Your task to perform on an android device: check battery use Image 0: 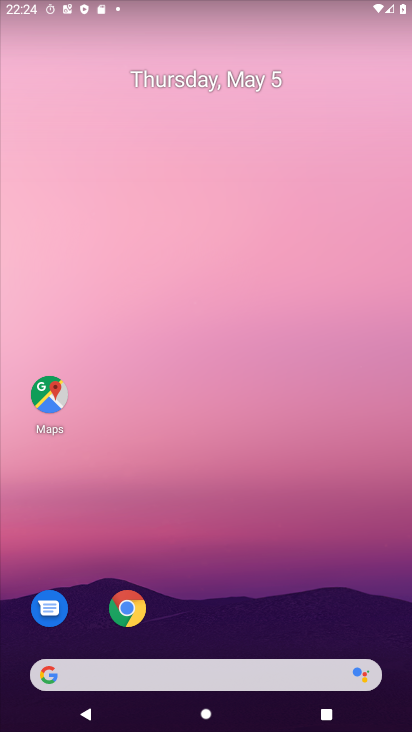
Step 0: drag from (297, 689) to (272, 117)
Your task to perform on an android device: check battery use Image 1: 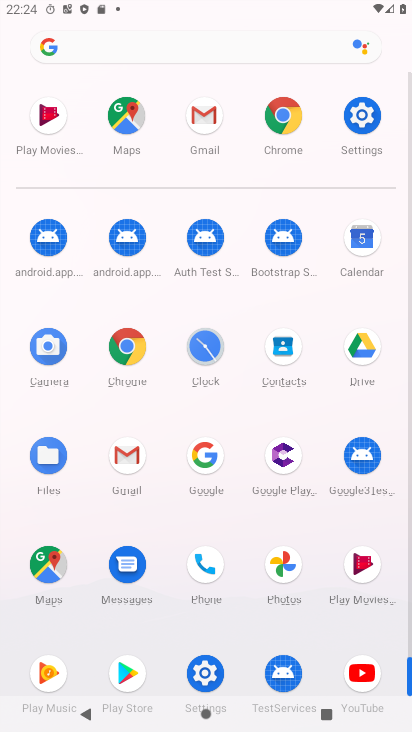
Step 1: click (365, 116)
Your task to perform on an android device: check battery use Image 2: 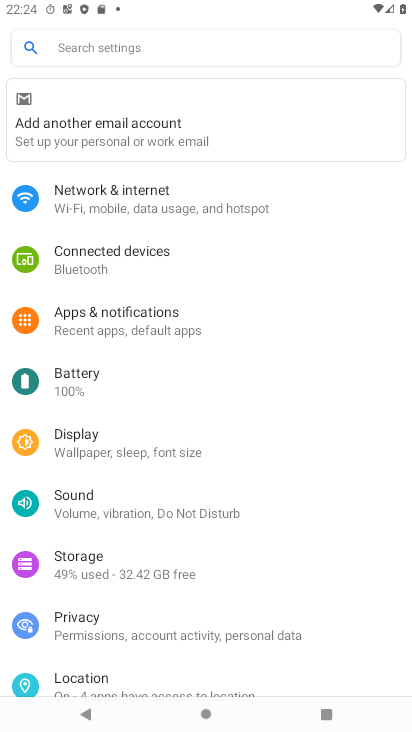
Step 2: click (152, 390)
Your task to perform on an android device: check battery use Image 3: 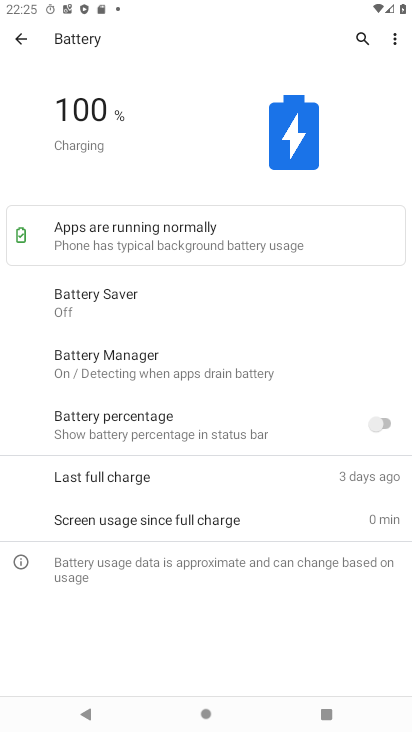
Step 3: task complete